Your task to perform on an android device: Open calendar and show me the second week of next month Image 0: 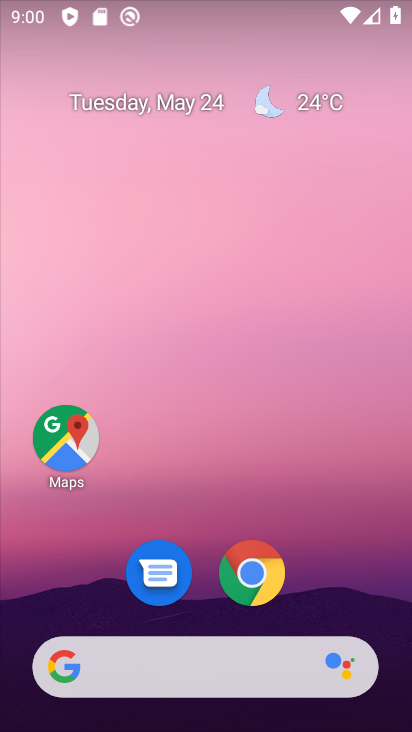
Step 0: drag from (56, 560) to (146, 233)
Your task to perform on an android device: Open calendar and show me the second week of next month Image 1: 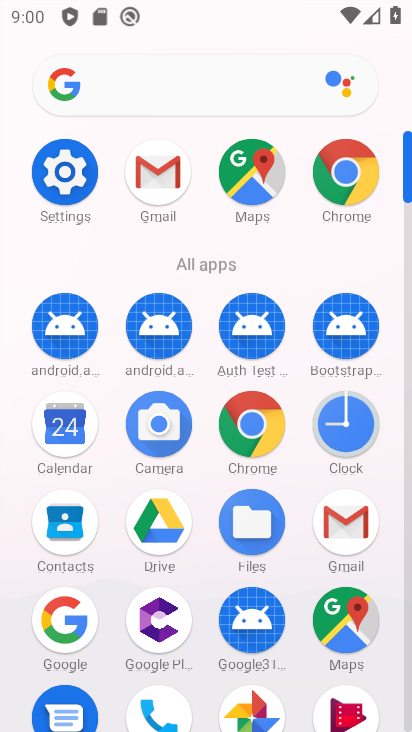
Step 1: click (61, 437)
Your task to perform on an android device: Open calendar and show me the second week of next month Image 2: 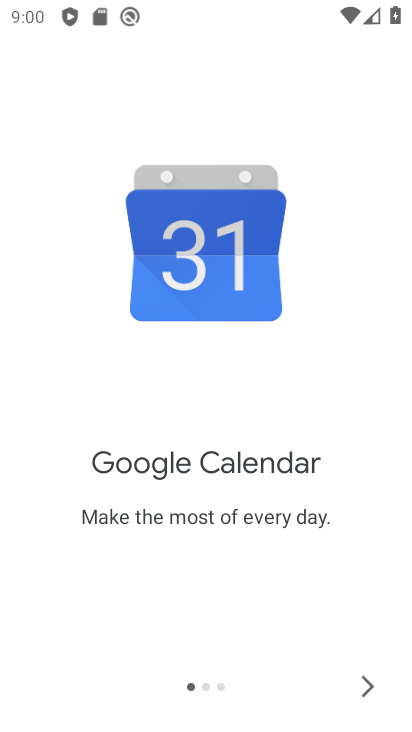
Step 2: click (381, 690)
Your task to perform on an android device: Open calendar and show me the second week of next month Image 3: 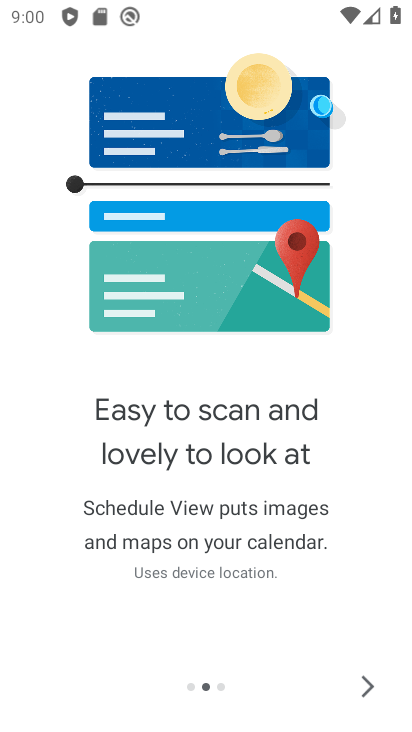
Step 3: click (381, 688)
Your task to perform on an android device: Open calendar and show me the second week of next month Image 4: 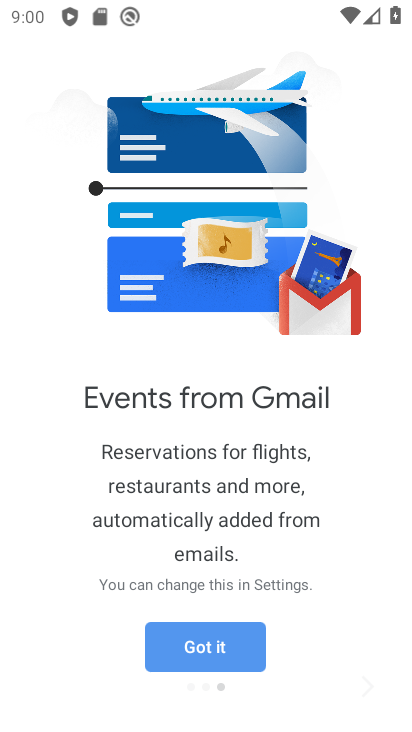
Step 4: click (381, 686)
Your task to perform on an android device: Open calendar and show me the second week of next month Image 5: 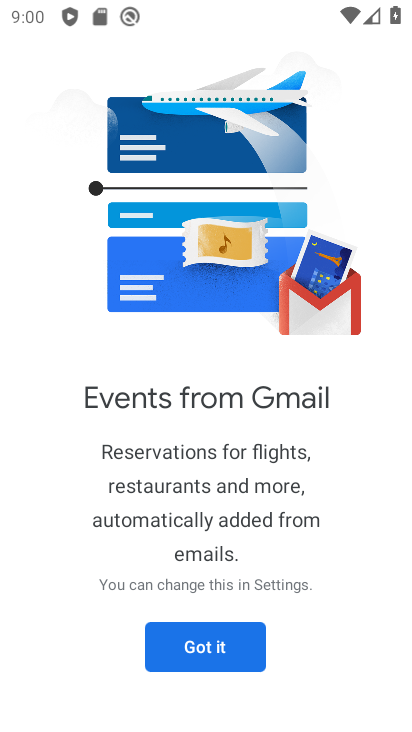
Step 5: click (234, 646)
Your task to perform on an android device: Open calendar and show me the second week of next month Image 6: 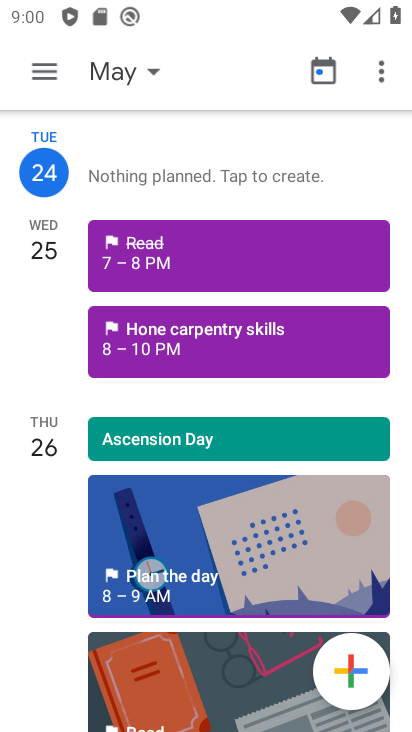
Step 6: click (134, 80)
Your task to perform on an android device: Open calendar and show me the second week of next month Image 7: 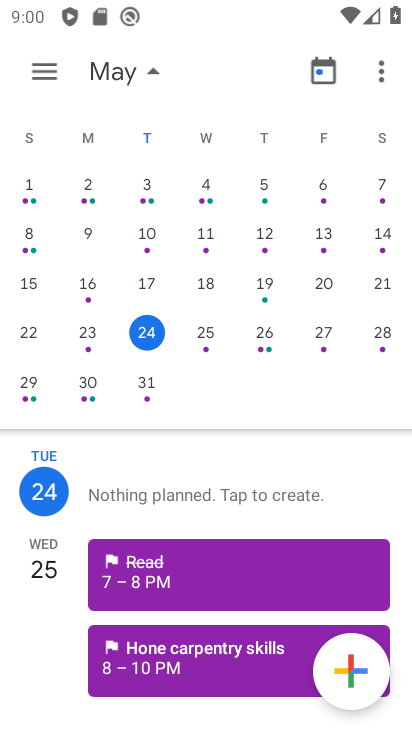
Step 7: drag from (365, 380) to (21, 371)
Your task to perform on an android device: Open calendar and show me the second week of next month Image 8: 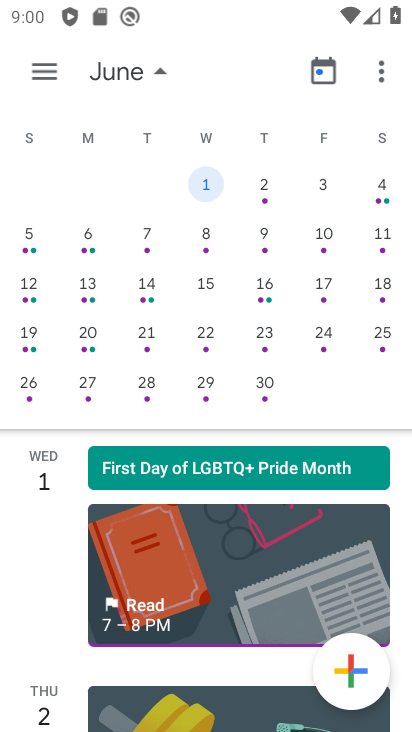
Step 8: click (24, 286)
Your task to perform on an android device: Open calendar and show me the second week of next month Image 9: 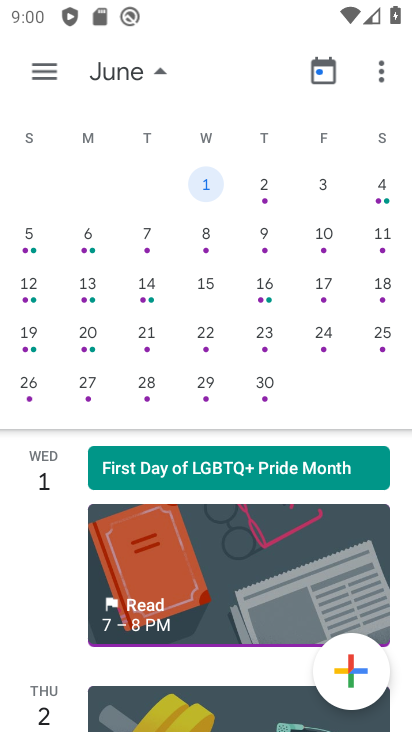
Step 9: click (32, 290)
Your task to perform on an android device: Open calendar and show me the second week of next month Image 10: 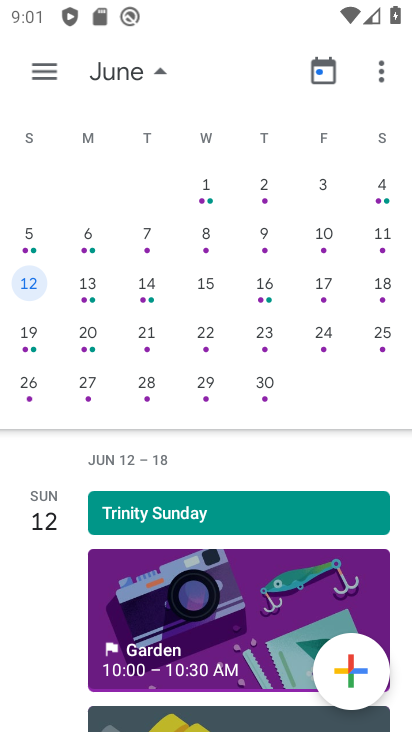
Step 10: click (142, 78)
Your task to perform on an android device: Open calendar and show me the second week of next month Image 11: 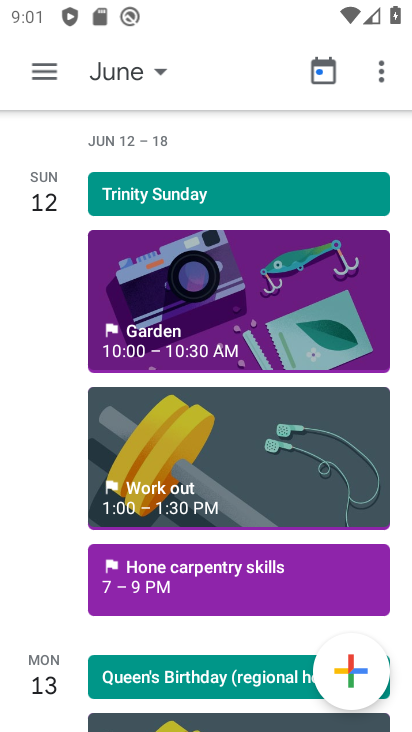
Step 11: click (61, 78)
Your task to perform on an android device: Open calendar and show me the second week of next month Image 12: 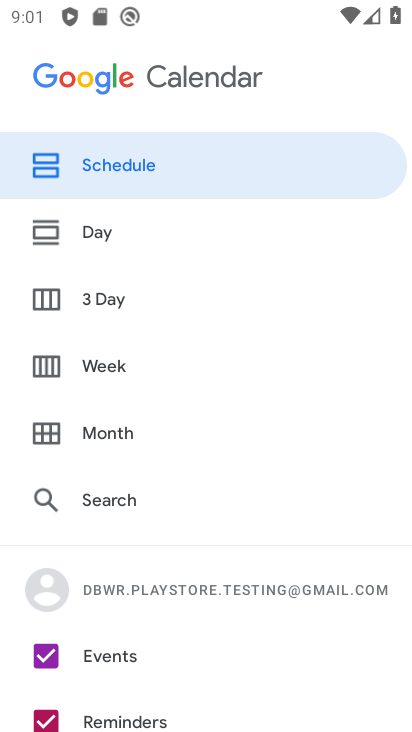
Step 12: click (108, 372)
Your task to perform on an android device: Open calendar and show me the second week of next month Image 13: 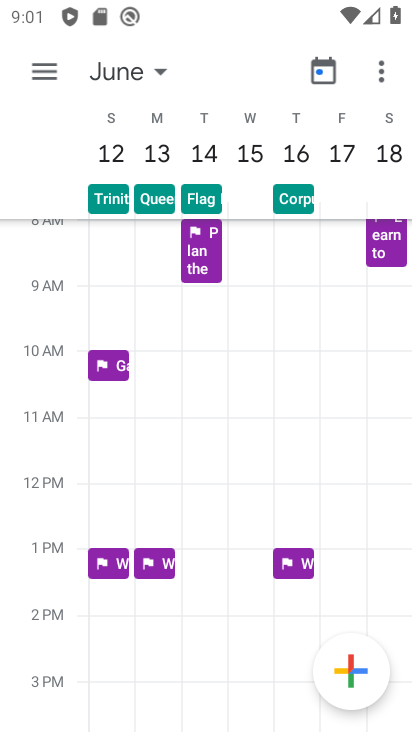
Step 13: task complete